Your task to perform on an android device: Clear the cart on bestbuy. Add razer nari to the cart on bestbuy, then select checkout. Image 0: 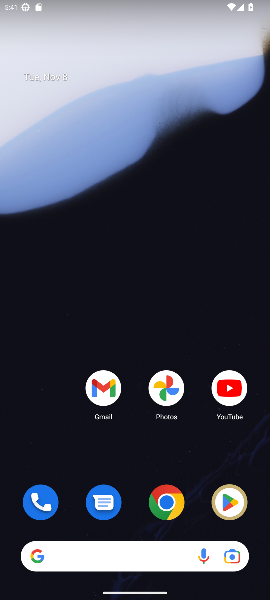
Step 0: drag from (108, 483) to (169, 98)
Your task to perform on an android device: Clear the cart on bestbuy. Add razer nari to the cart on bestbuy, then select checkout. Image 1: 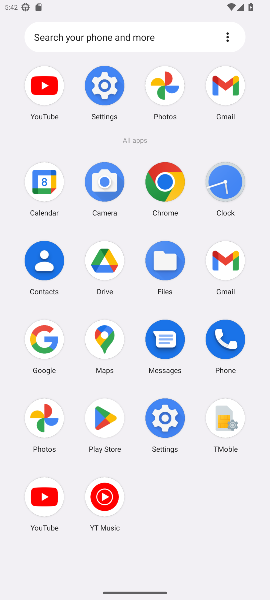
Step 1: click (40, 344)
Your task to perform on an android device: Clear the cart on bestbuy. Add razer nari to the cart on bestbuy, then select checkout. Image 2: 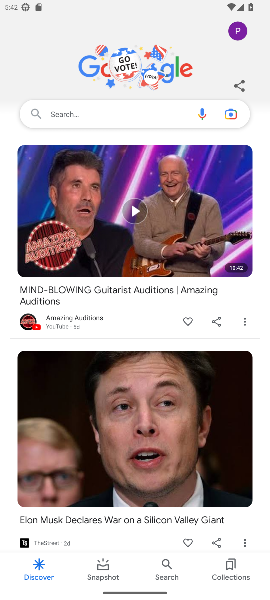
Step 2: click (122, 110)
Your task to perform on an android device: Clear the cart on bestbuy. Add razer nari to the cart on bestbuy, then select checkout. Image 3: 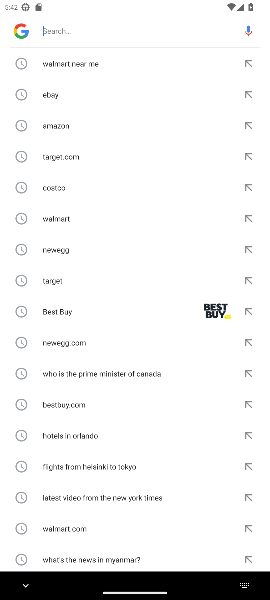
Step 3: type "bestbuy "
Your task to perform on an android device: Clear the cart on bestbuy. Add razer nari to the cart on bestbuy, then select checkout. Image 4: 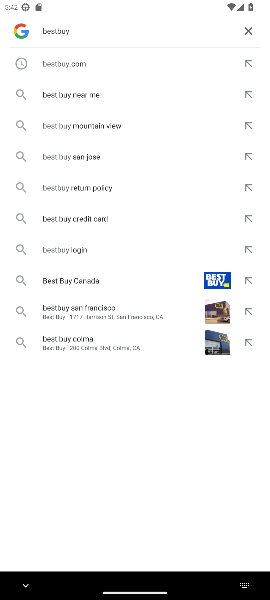
Step 4: click (48, 60)
Your task to perform on an android device: Clear the cart on bestbuy. Add razer nari to the cart on bestbuy, then select checkout. Image 5: 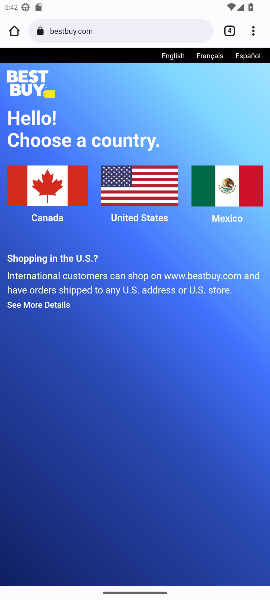
Step 5: click (142, 195)
Your task to perform on an android device: Clear the cart on bestbuy. Add razer nari to the cart on bestbuy, then select checkout. Image 6: 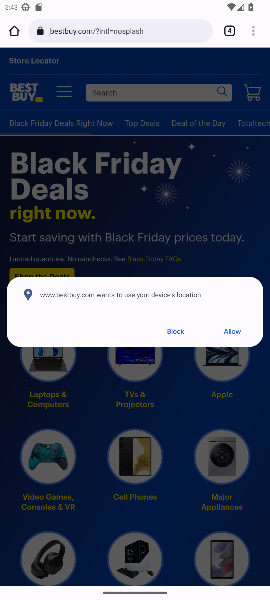
Step 6: click (231, 328)
Your task to perform on an android device: Clear the cart on bestbuy. Add razer nari to the cart on bestbuy, then select checkout. Image 7: 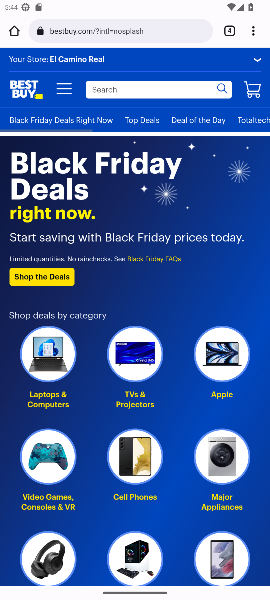
Step 7: click (106, 84)
Your task to perform on an android device: Clear the cart on bestbuy. Add razer nari to the cart on bestbuy, then select checkout. Image 8: 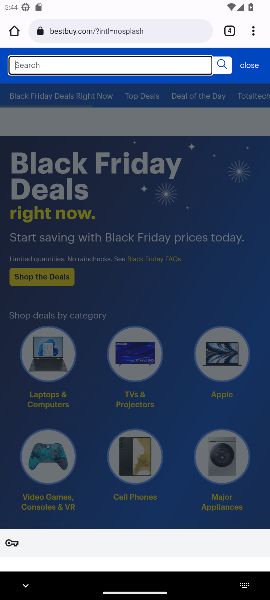
Step 8: type "razer nari "
Your task to perform on an android device: Clear the cart on bestbuy. Add razer nari to the cart on bestbuy, then select checkout. Image 9: 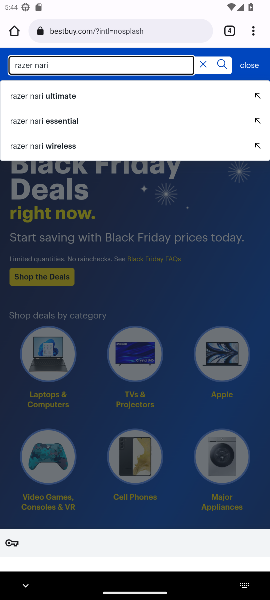
Step 9: click (38, 93)
Your task to perform on an android device: Clear the cart on bestbuy. Add razer nari to the cart on bestbuy, then select checkout. Image 10: 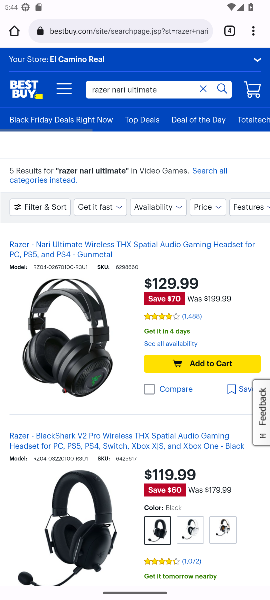
Step 10: click (182, 359)
Your task to perform on an android device: Clear the cart on bestbuy. Add razer nari to the cart on bestbuy, then select checkout. Image 11: 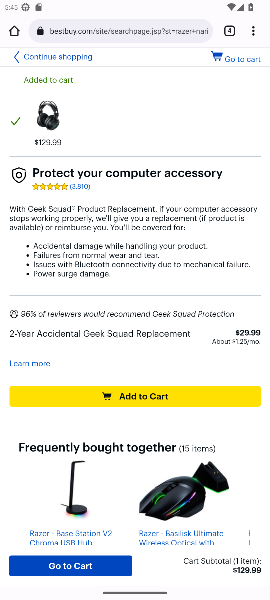
Step 11: click (114, 393)
Your task to perform on an android device: Clear the cart on bestbuy. Add razer nari to the cart on bestbuy, then select checkout. Image 12: 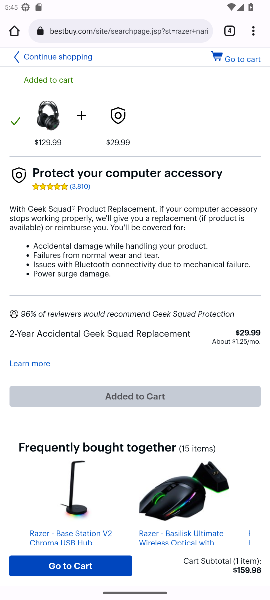
Step 12: task complete